Your task to perform on an android device: Is it going to rain tomorrow? Image 0: 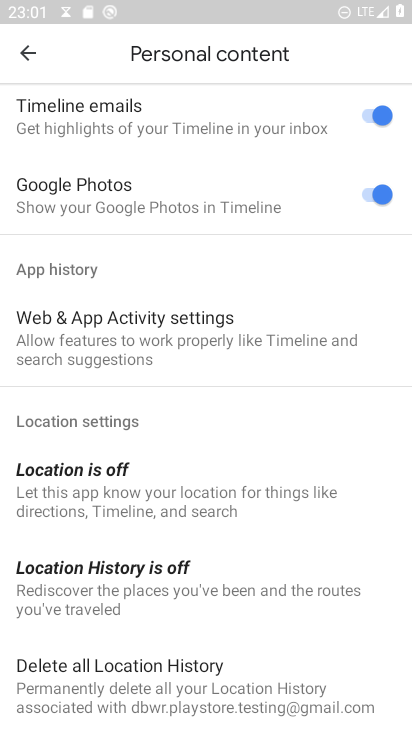
Step 0: press home button
Your task to perform on an android device: Is it going to rain tomorrow? Image 1: 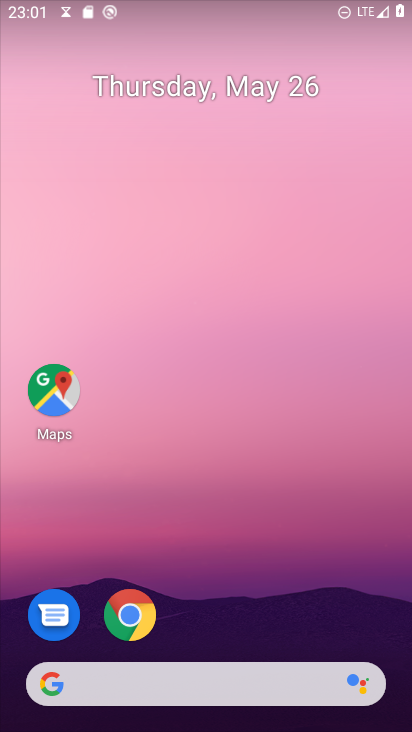
Step 1: click (122, 616)
Your task to perform on an android device: Is it going to rain tomorrow? Image 2: 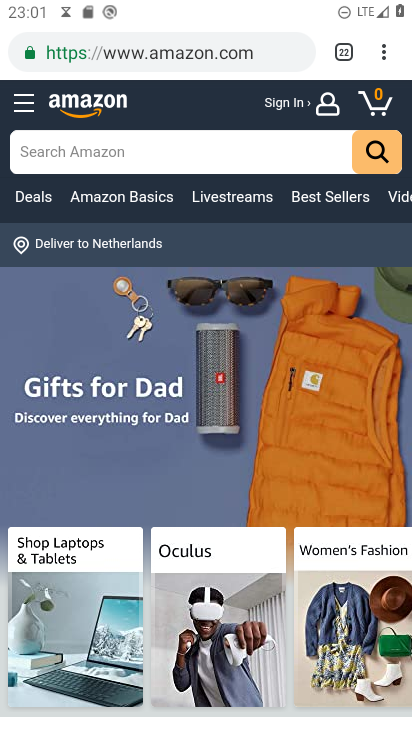
Step 2: click (387, 43)
Your task to perform on an android device: Is it going to rain tomorrow? Image 3: 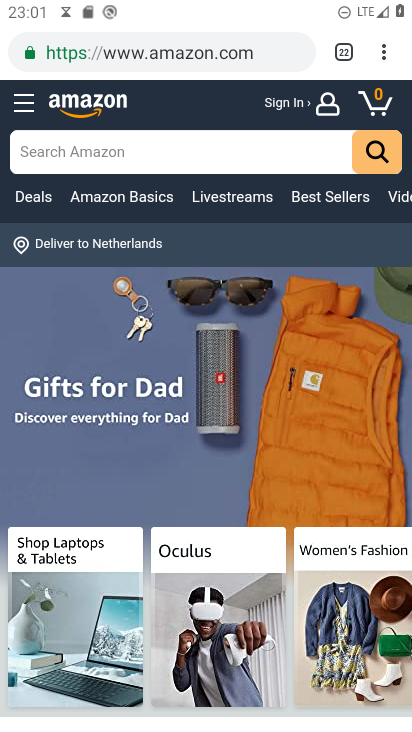
Step 3: click (384, 48)
Your task to perform on an android device: Is it going to rain tomorrow? Image 4: 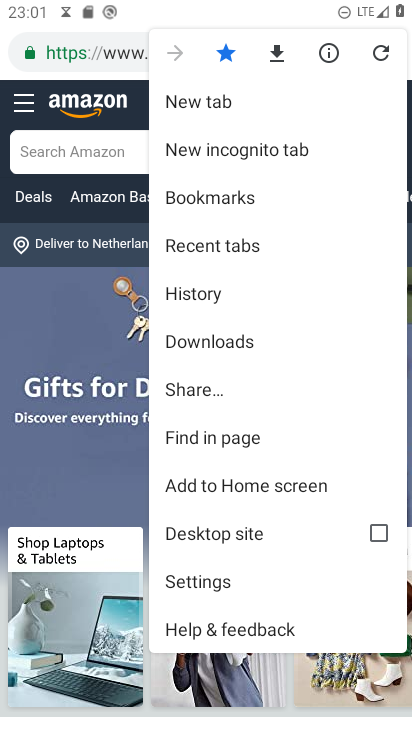
Step 4: click (254, 105)
Your task to perform on an android device: Is it going to rain tomorrow? Image 5: 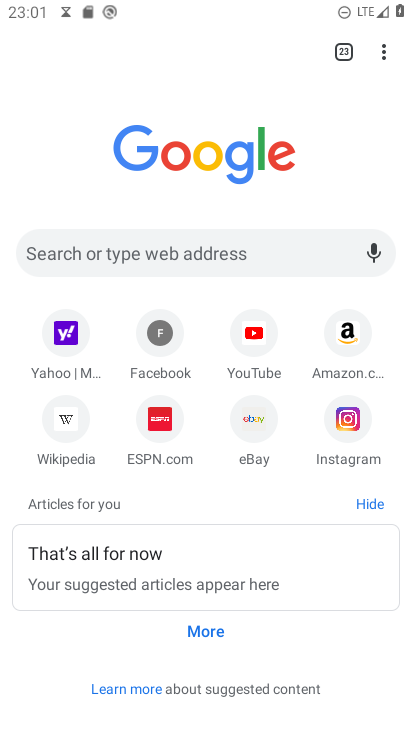
Step 5: click (245, 243)
Your task to perform on an android device: Is it going to rain tomorrow? Image 6: 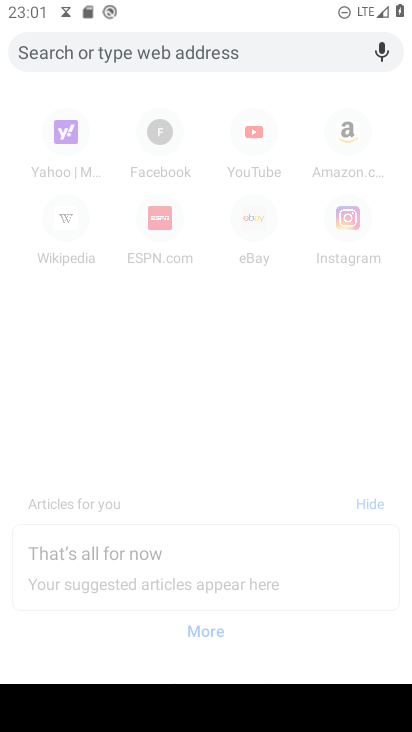
Step 6: type "Is it going to rain tomorrow?"
Your task to perform on an android device: Is it going to rain tomorrow? Image 7: 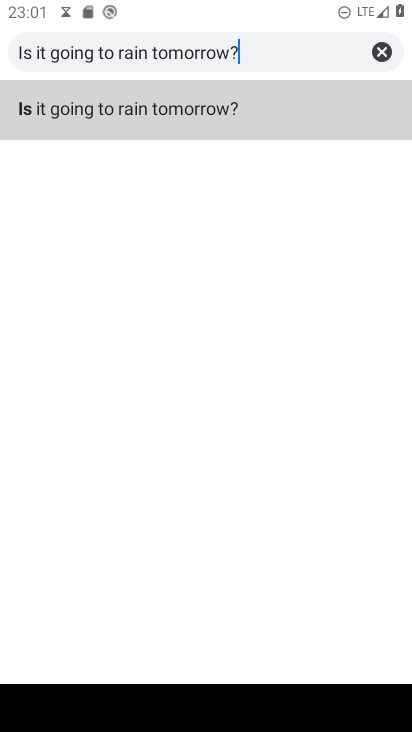
Step 7: click (135, 101)
Your task to perform on an android device: Is it going to rain tomorrow? Image 8: 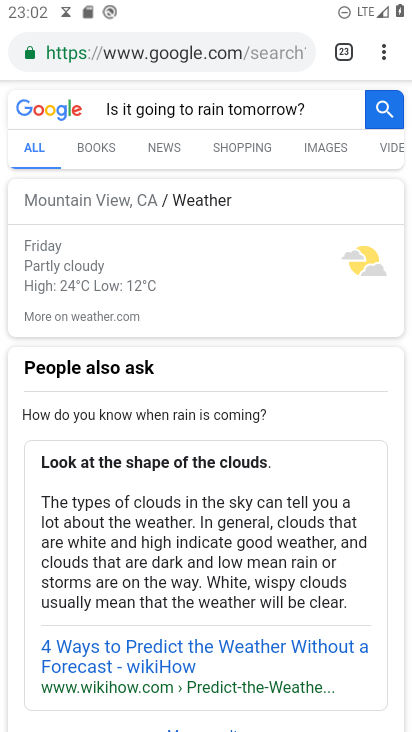
Step 8: task complete